Your task to perform on an android device: Go to Yahoo.com Image 0: 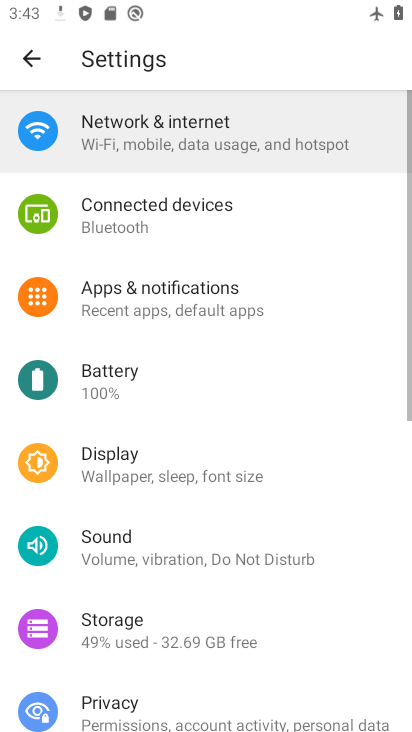
Step 0: press home button
Your task to perform on an android device: Go to Yahoo.com Image 1: 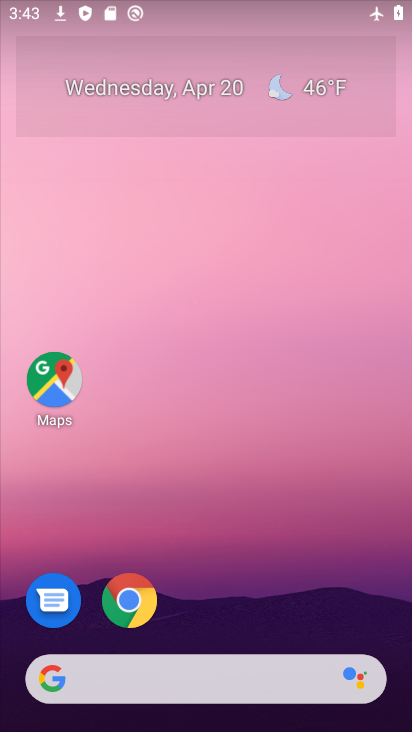
Step 1: click (132, 605)
Your task to perform on an android device: Go to Yahoo.com Image 2: 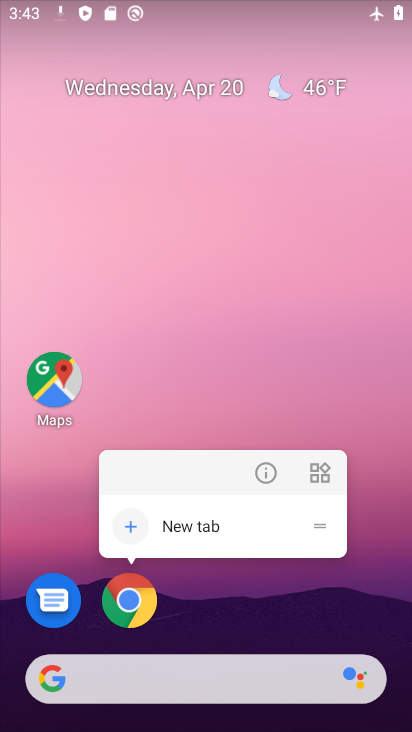
Step 2: click (131, 604)
Your task to perform on an android device: Go to Yahoo.com Image 3: 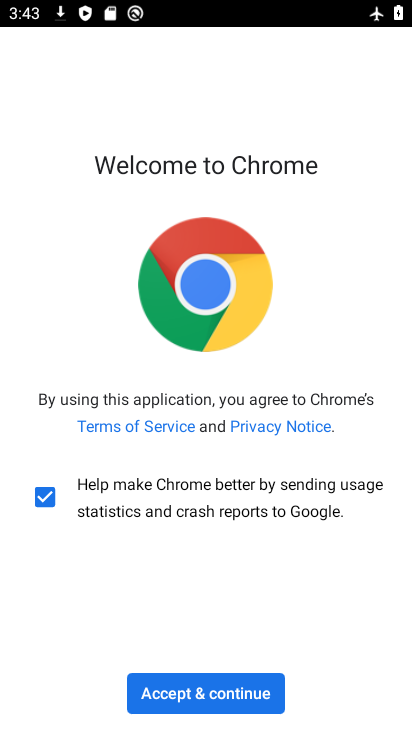
Step 3: click (244, 688)
Your task to perform on an android device: Go to Yahoo.com Image 4: 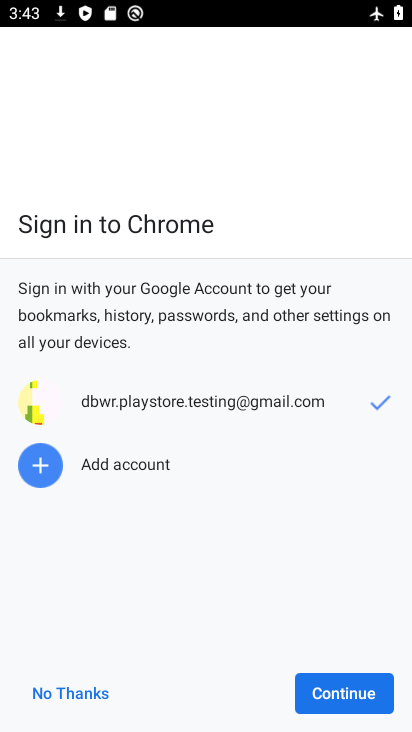
Step 4: click (347, 685)
Your task to perform on an android device: Go to Yahoo.com Image 5: 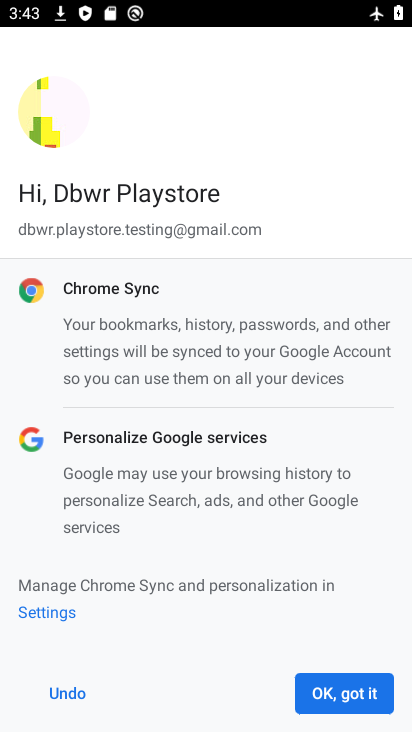
Step 5: click (349, 684)
Your task to perform on an android device: Go to Yahoo.com Image 6: 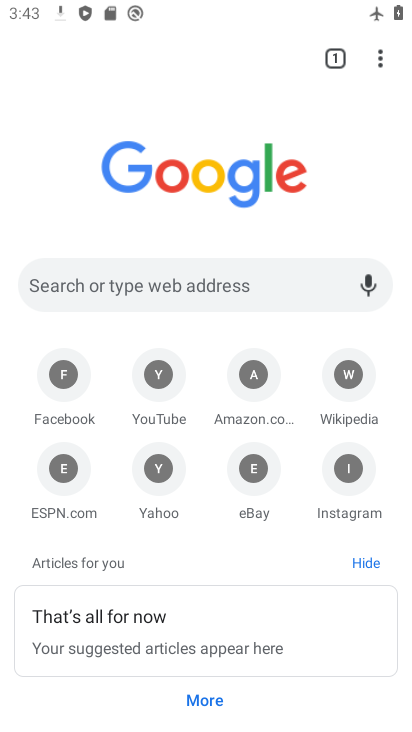
Step 6: click (155, 470)
Your task to perform on an android device: Go to Yahoo.com Image 7: 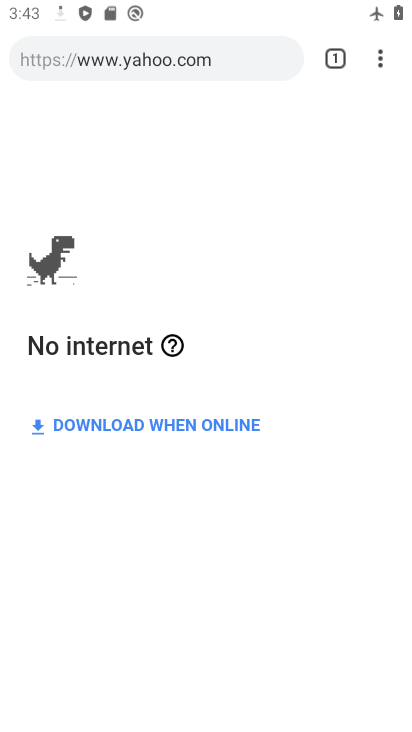
Step 7: task complete